Your task to perform on an android device: make emails show in primary in the gmail app Image 0: 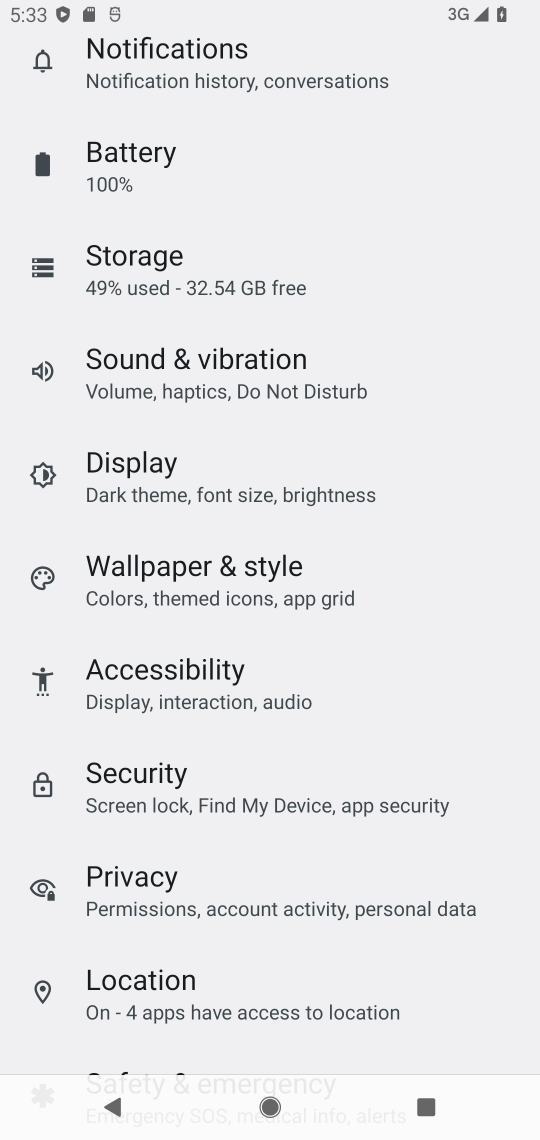
Step 0: press home button
Your task to perform on an android device: make emails show in primary in the gmail app Image 1: 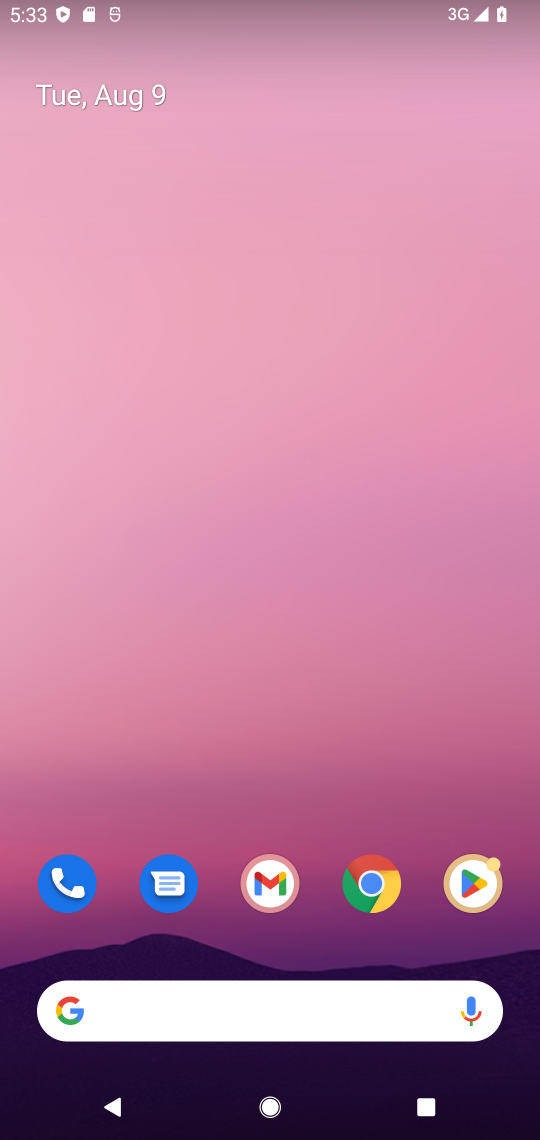
Step 1: click (285, 890)
Your task to perform on an android device: make emails show in primary in the gmail app Image 2: 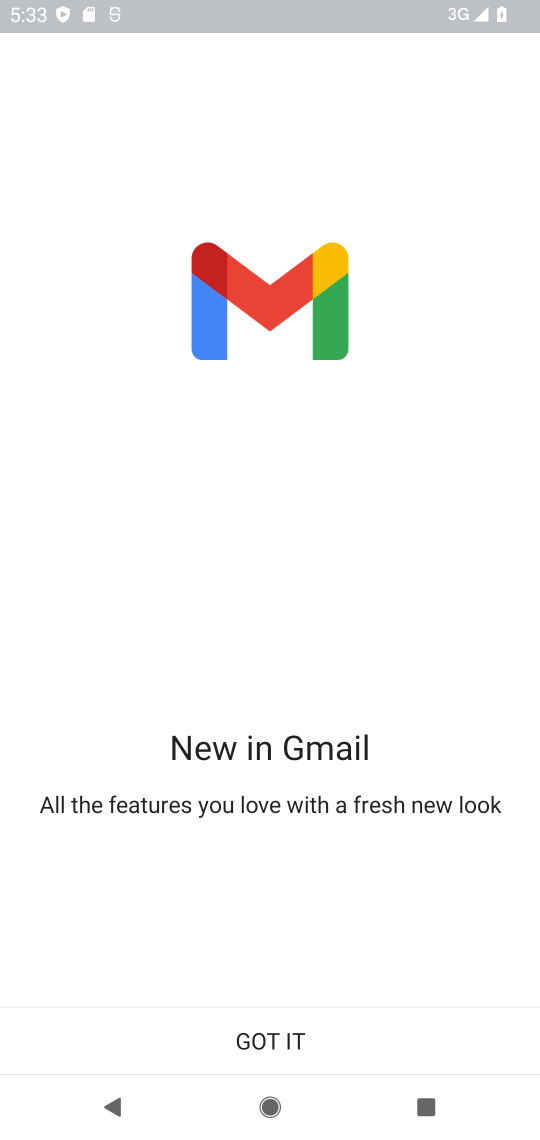
Step 2: click (315, 1036)
Your task to perform on an android device: make emails show in primary in the gmail app Image 3: 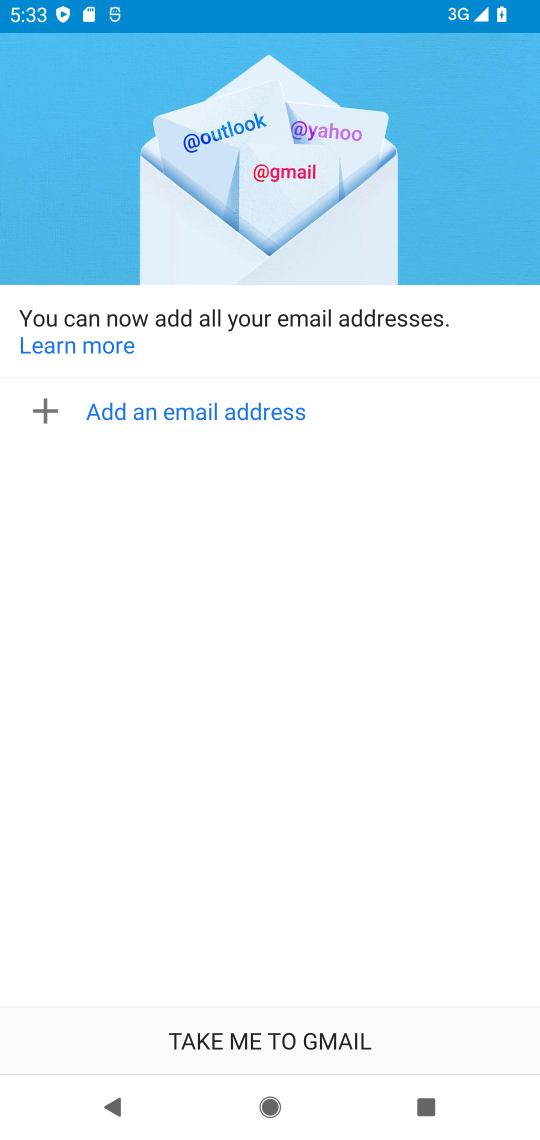
Step 3: click (275, 1036)
Your task to perform on an android device: make emails show in primary in the gmail app Image 4: 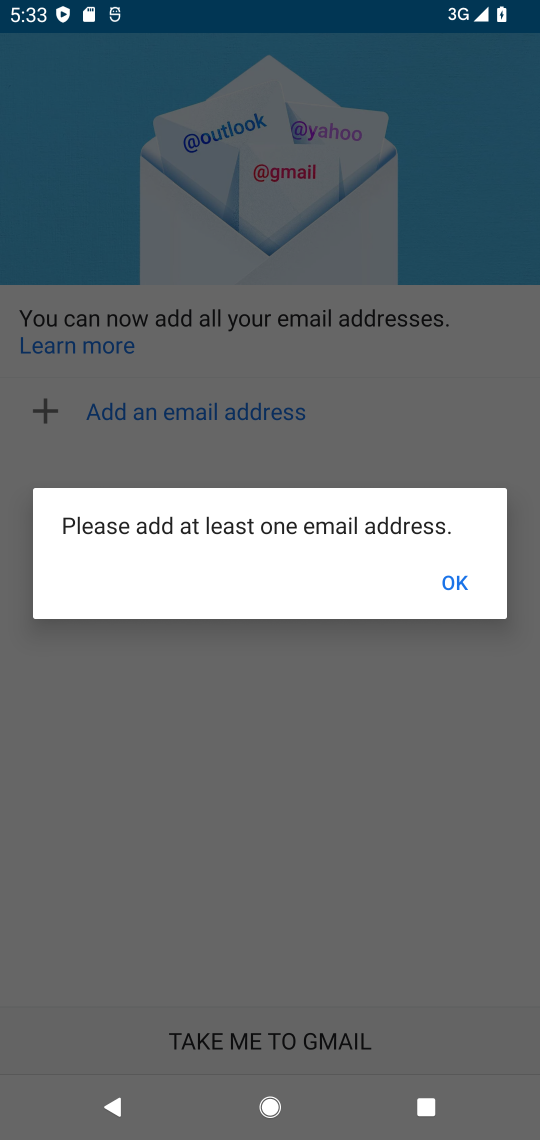
Step 4: click (466, 584)
Your task to perform on an android device: make emails show in primary in the gmail app Image 5: 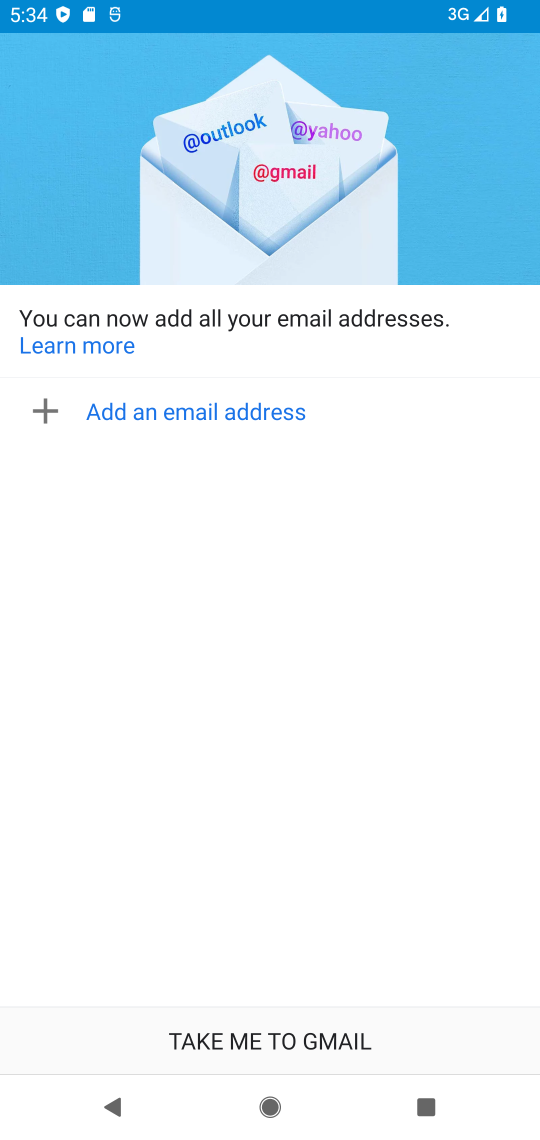
Step 5: task complete